Your task to perform on an android device: Open Google Maps and go to "Timeline" Image 0: 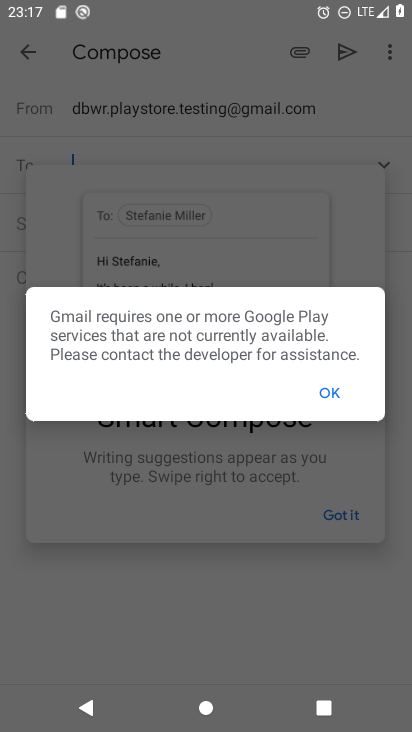
Step 0: click (331, 399)
Your task to perform on an android device: Open Google Maps and go to "Timeline" Image 1: 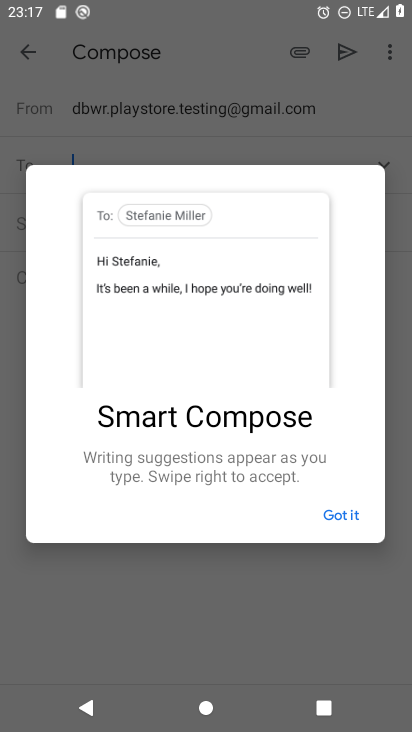
Step 1: press home button
Your task to perform on an android device: Open Google Maps and go to "Timeline" Image 2: 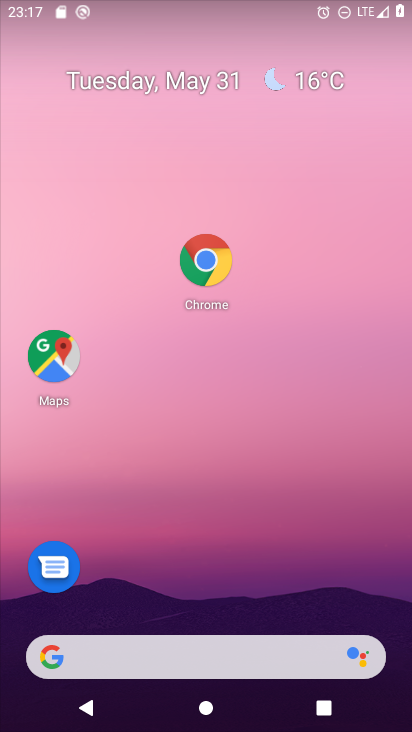
Step 2: click (58, 357)
Your task to perform on an android device: Open Google Maps and go to "Timeline" Image 3: 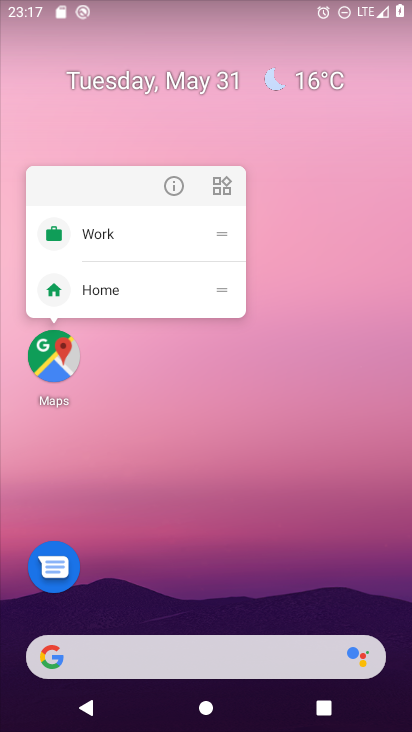
Step 3: click (49, 379)
Your task to perform on an android device: Open Google Maps and go to "Timeline" Image 4: 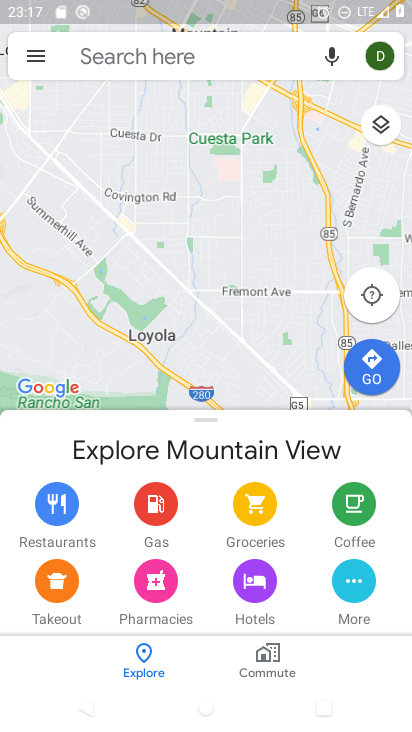
Step 4: click (29, 53)
Your task to perform on an android device: Open Google Maps and go to "Timeline" Image 5: 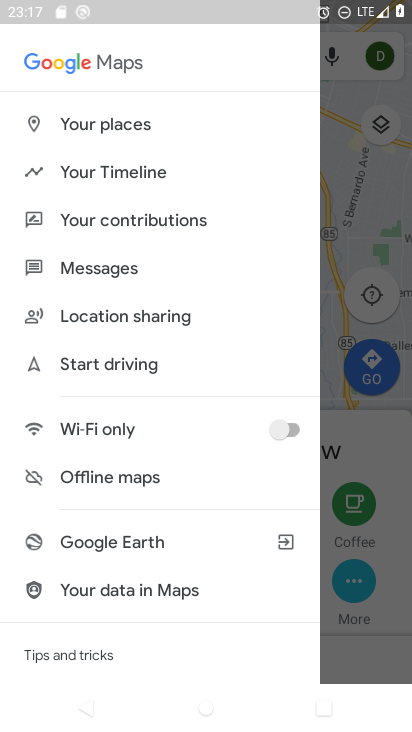
Step 5: click (88, 174)
Your task to perform on an android device: Open Google Maps and go to "Timeline" Image 6: 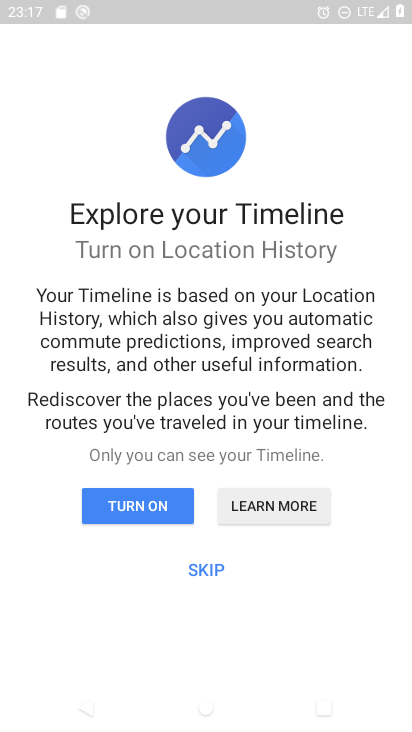
Step 6: click (254, 512)
Your task to perform on an android device: Open Google Maps and go to "Timeline" Image 7: 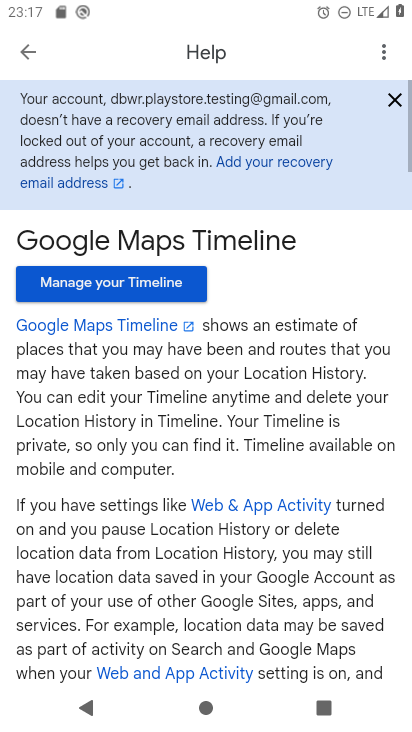
Step 7: task complete